Your task to perform on an android device: delete browsing data in the chrome app Image 0: 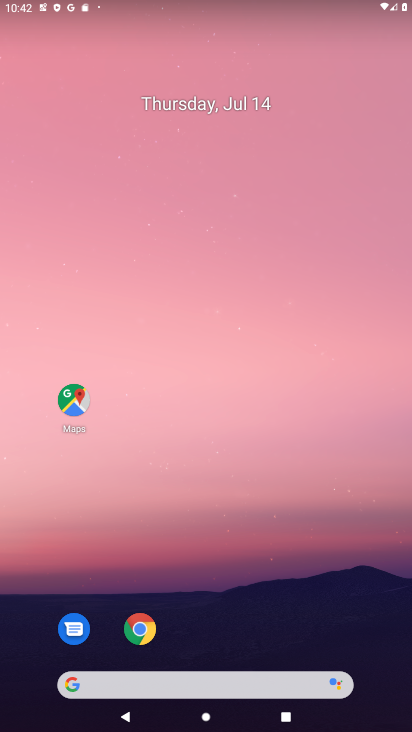
Step 0: click (146, 634)
Your task to perform on an android device: delete browsing data in the chrome app Image 1: 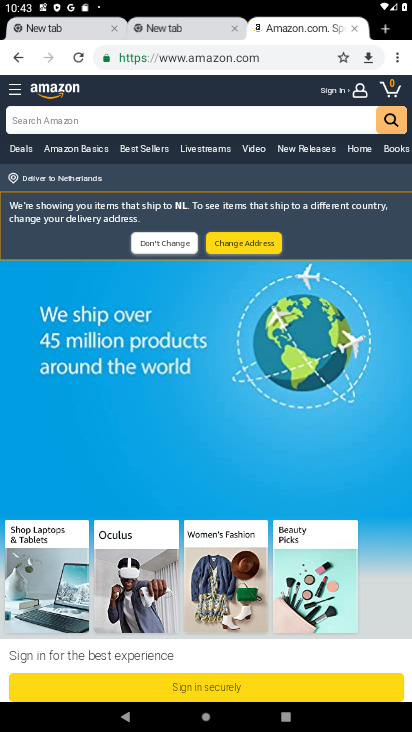
Step 1: click (402, 61)
Your task to perform on an android device: delete browsing data in the chrome app Image 2: 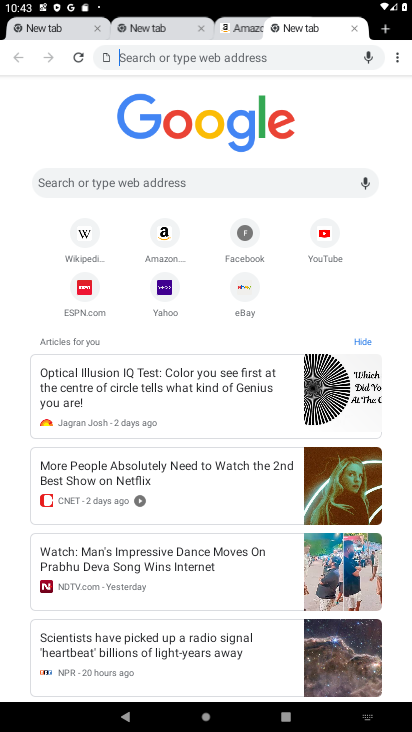
Step 2: click (400, 54)
Your task to perform on an android device: delete browsing data in the chrome app Image 3: 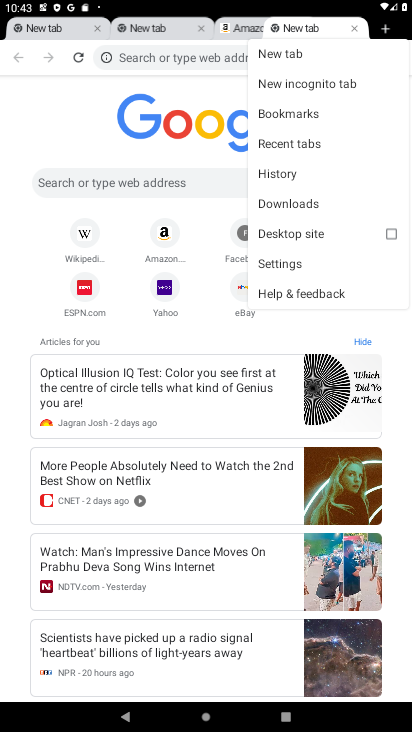
Step 3: click (306, 172)
Your task to perform on an android device: delete browsing data in the chrome app Image 4: 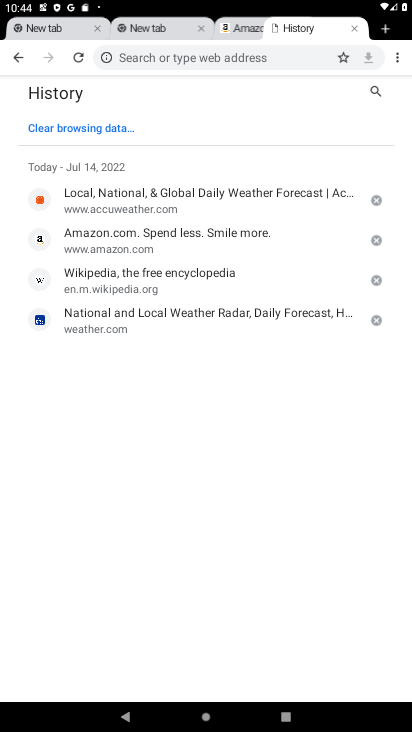
Step 4: press home button
Your task to perform on an android device: delete browsing data in the chrome app Image 5: 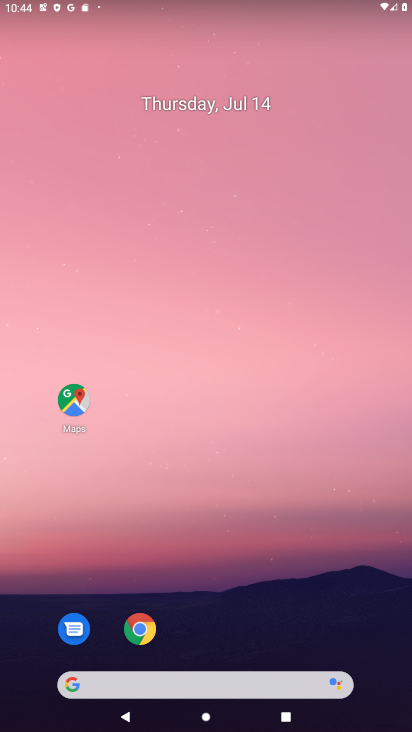
Step 5: click (148, 634)
Your task to perform on an android device: delete browsing data in the chrome app Image 6: 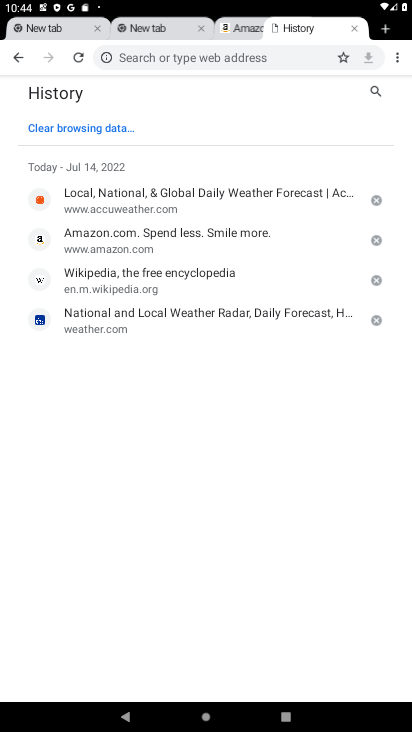
Step 6: click (63, 129)
Your task to perform on an android device: delete browsing data in the chrome app Image 7: 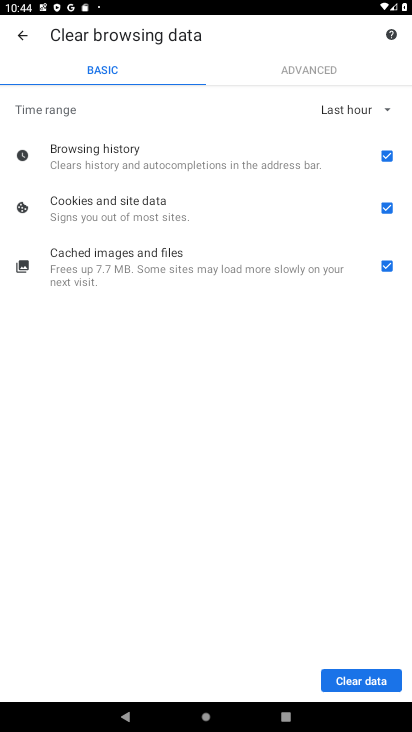
Step 7: click (375, 678)
Your task to perform on an android device: delete browsing data in the chrome app Image 8: 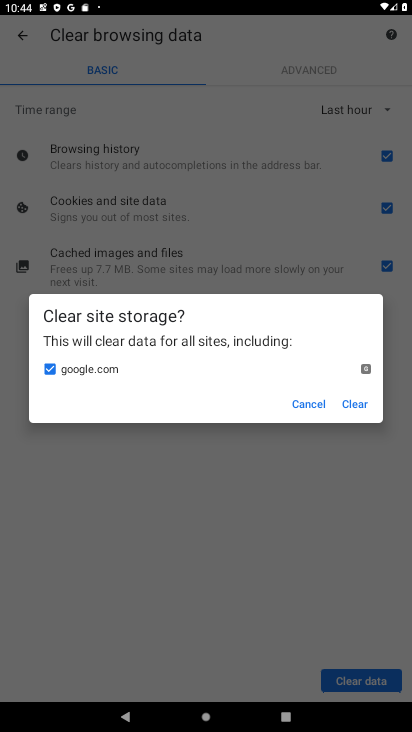
Step 8: click (364, 404)
Your task to perform on an android device: delete browsing data in the chrome app Image 9: 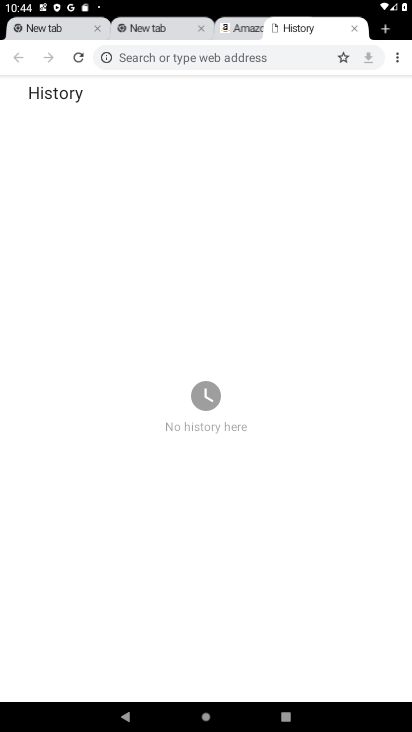
Step 9: task complete